Your task to perform on an android device: visit the assistant section in the google photos Image 0: 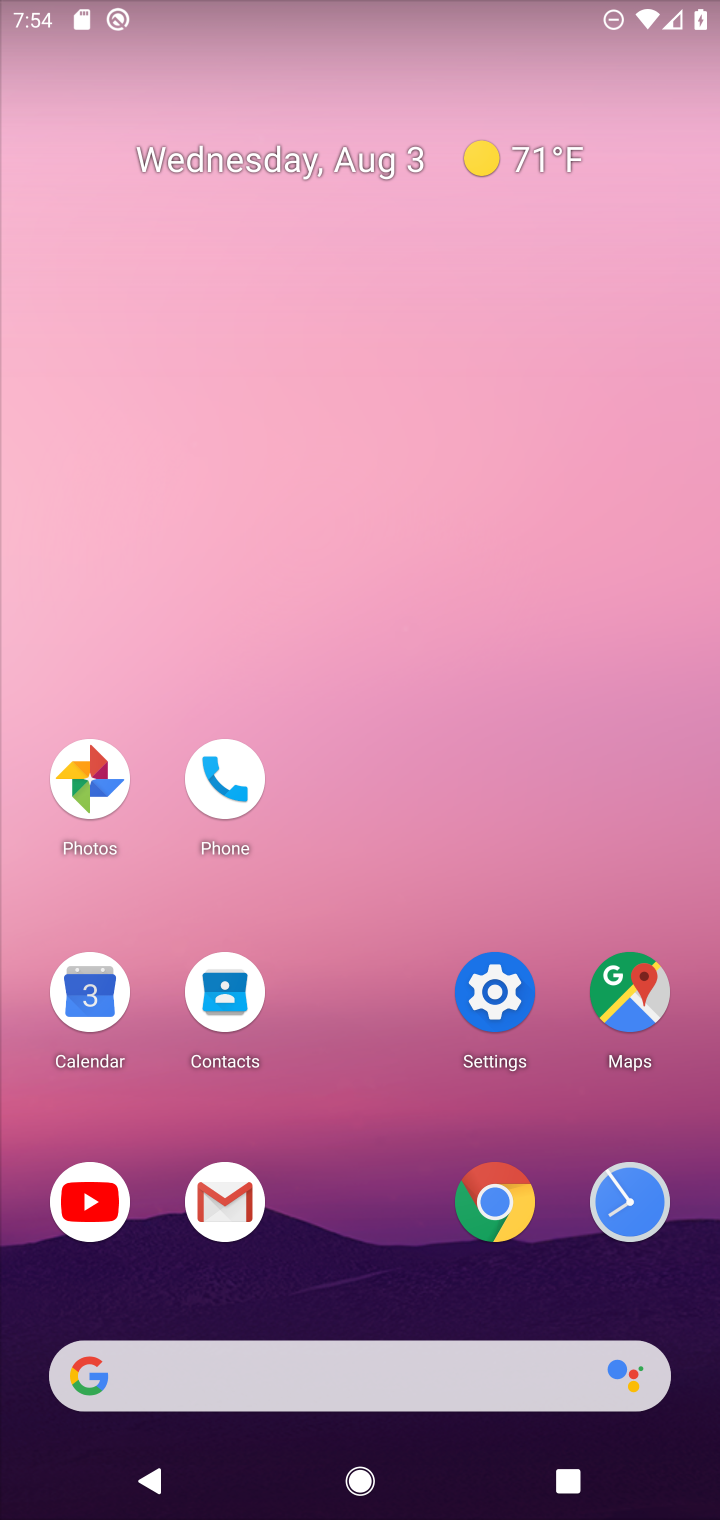
Step 0: click (87, 786)
Your task to perform on an android device: visit the assistant section in the google photos Image 1: 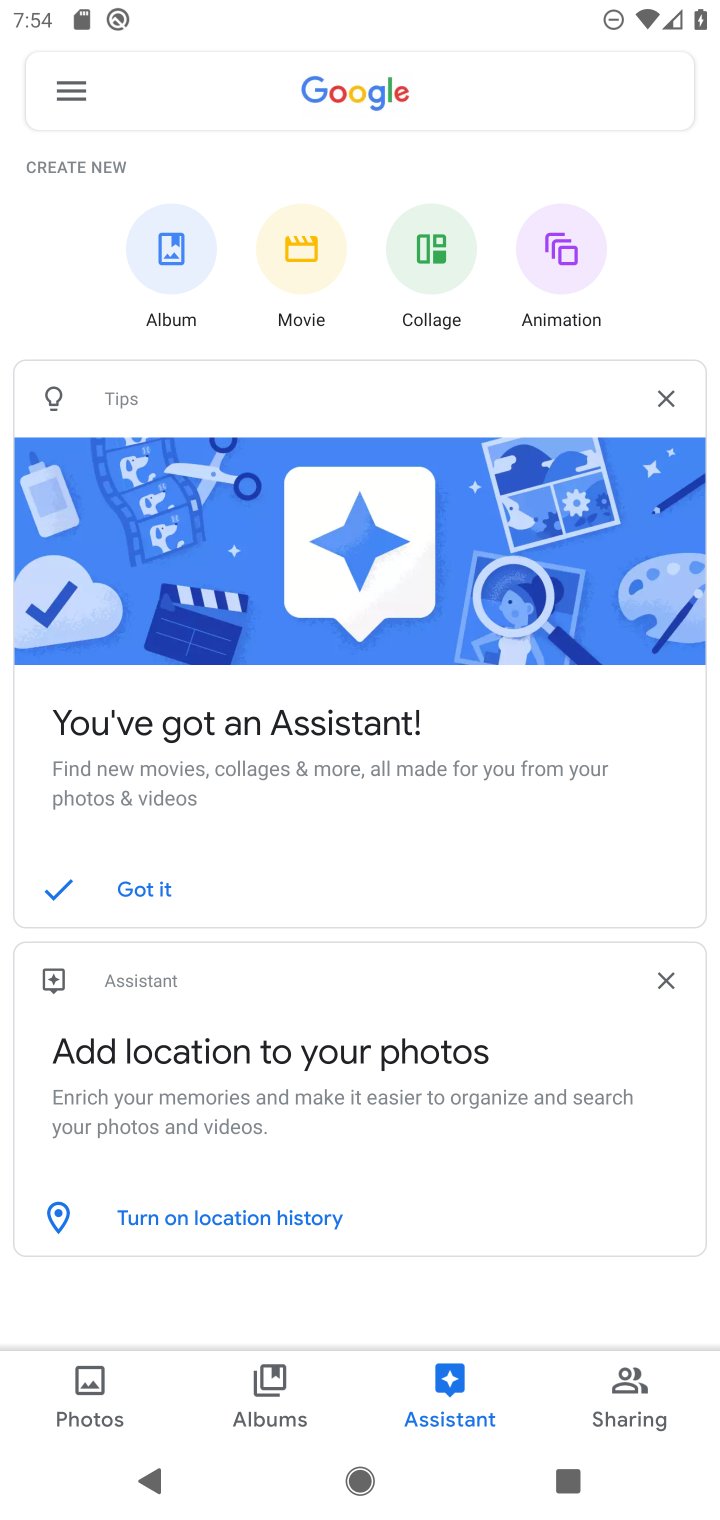
Step 1: click (451, 1384)
Your task to perform on an android device: visit the assistant section in the google photos Image 2: 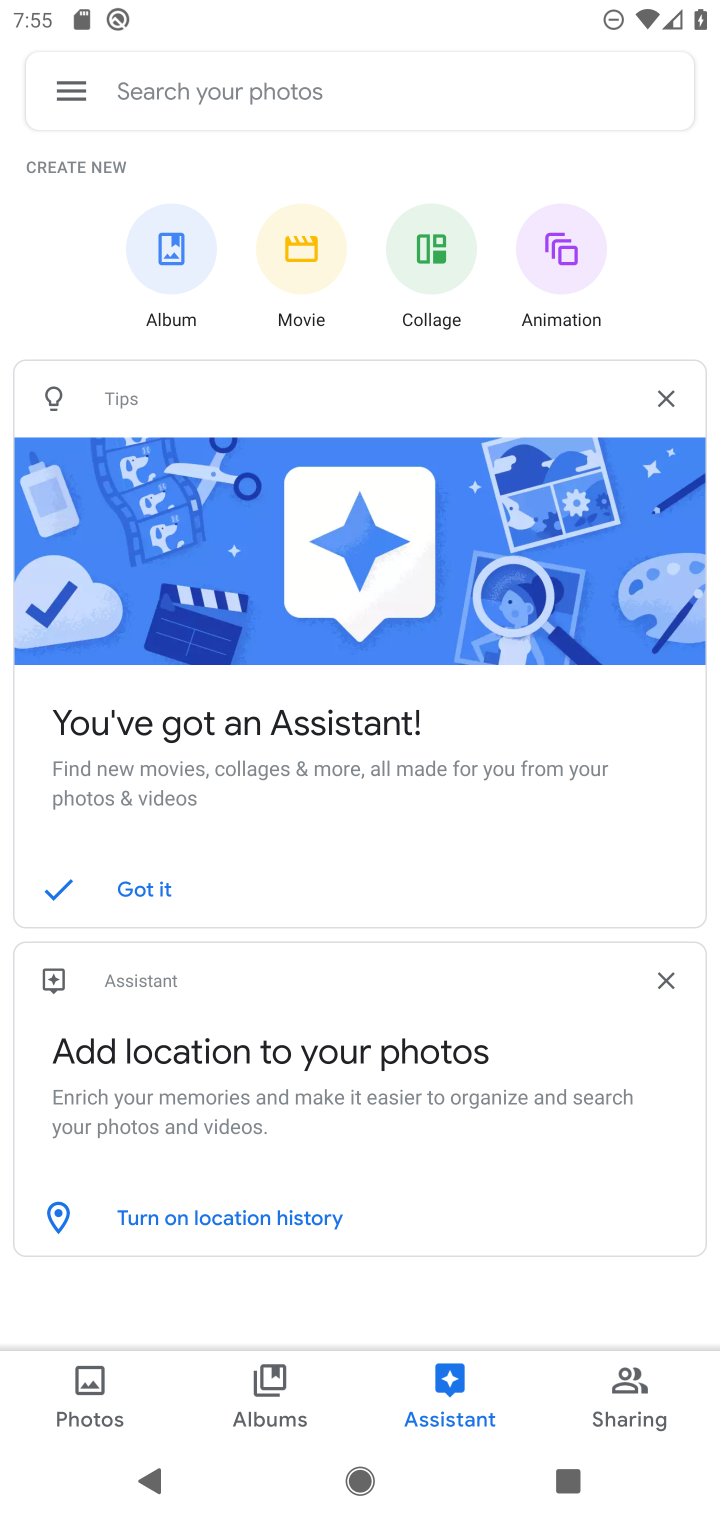
Step 2: task complete